Your task to perform on an android device: Open display settings Image 0: 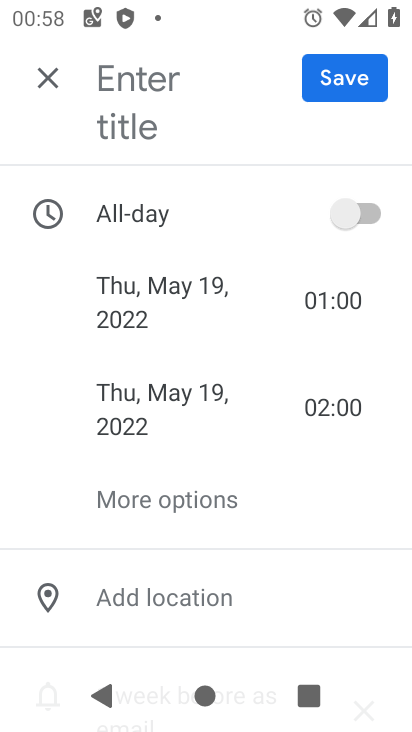
Step 0: press home button
Your task to perform on an android device: Open display settings Image 1: 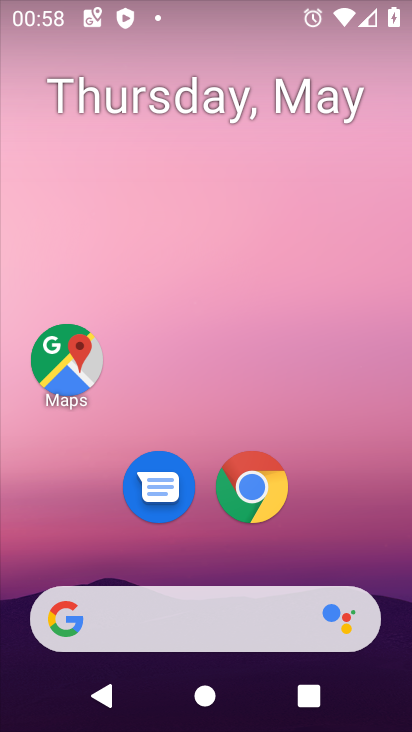
Step 1: drag from (353, 574) to (301, 8)
Your task to perform on an android device: Open display settings Image 2: 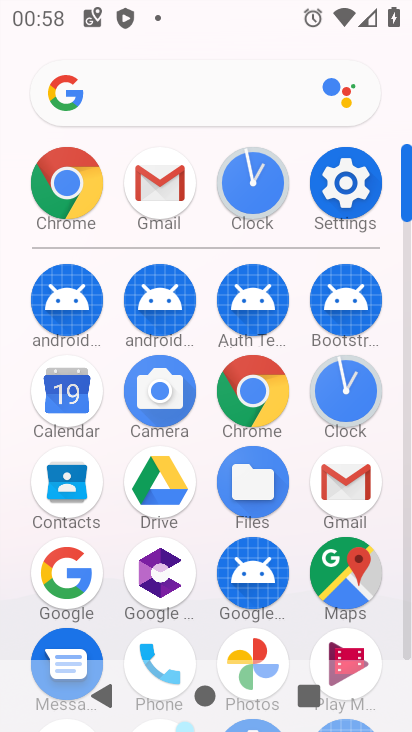
Step 2: click (337, 176)
Your task to perform on an android device: Open display settings Image 3: 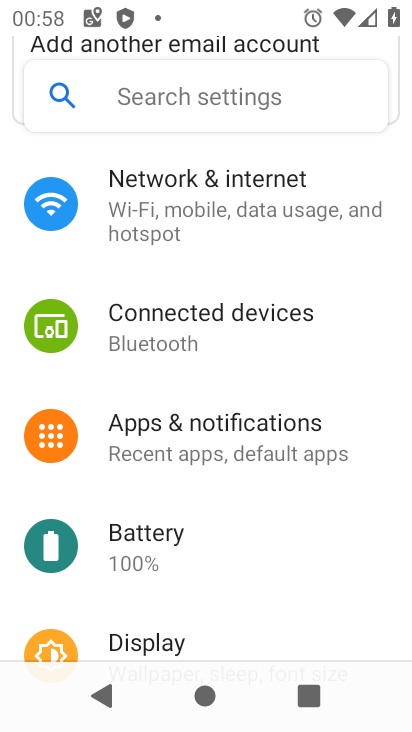
Step 3: drag from (272, 471) to (229, 142)
Your task to perform on an android device: Open display settings Image 4: 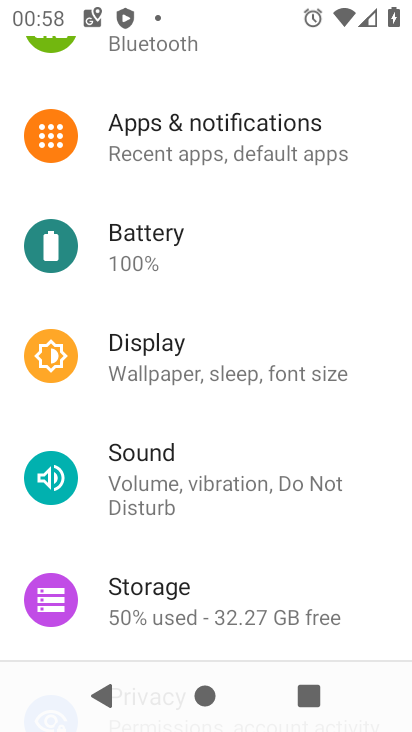
Step 4: click (135, 339)
Your task to perform on an android device: Open display settings Image 5: 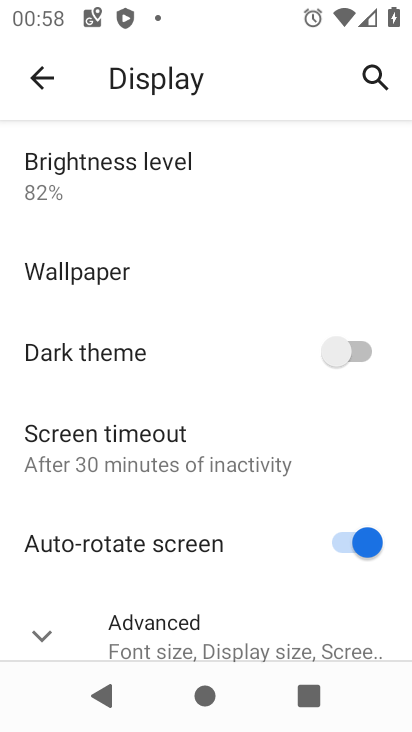
Step 5: task complete